Your task to perform on an android device: turn off airplane mode Image 0: 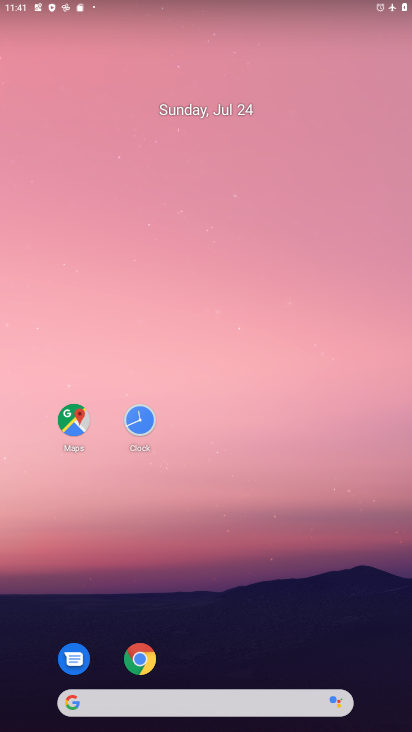
Step 0: drag from (378, 613) to (278, 12)
Your task to perform on an android device: turn off airplane mode Image 1: 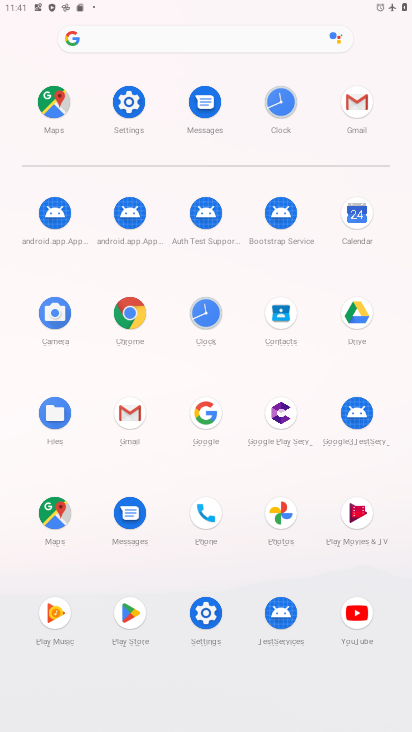
Step 1: click (131, 116)
Your task to perform on an android device: turn off airplane mode Image 2: 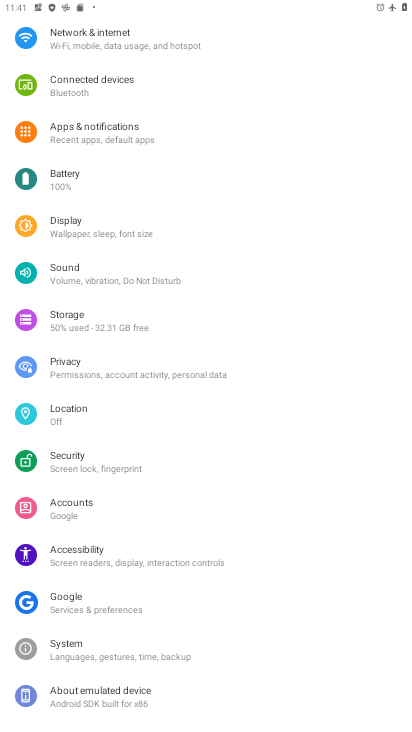
Step 2: click (111, 45)
Your task to perform on an android device: turn off airplane mode Image 3: 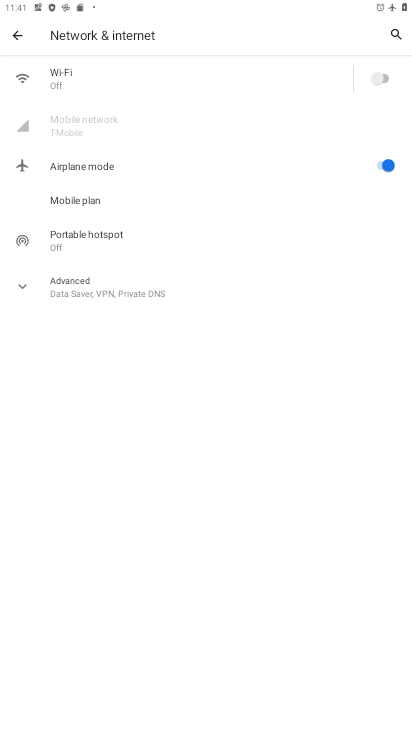
Step 3: click (380, 156)
Your task to perform on an android device: turn off airplane mode Image 4: 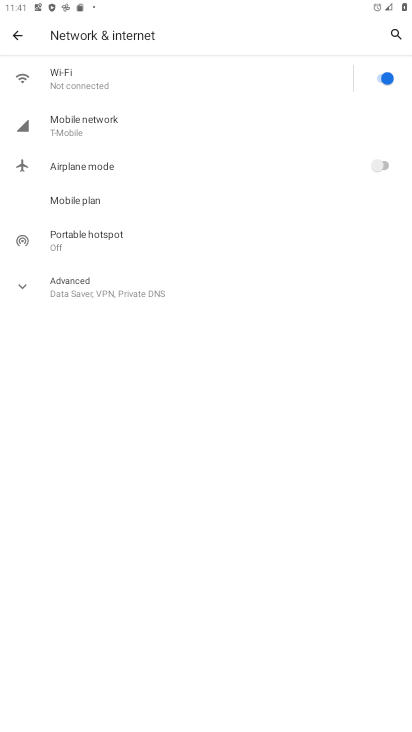
Step 4: task complete